Your task to perform on an android device: turn pop-ups off in chrome Image 0: 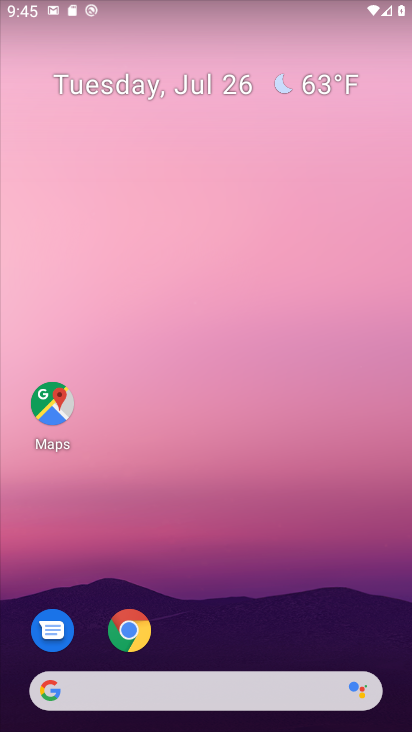
Step 0: press home button
Your task to perform on an android device: turn pop-ups off in chrome Image 1: 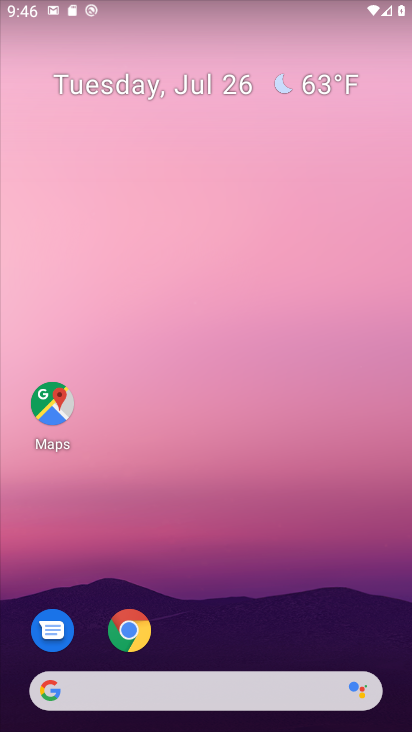
Step 1: click (126, 627)
Your task to perform on an android device: turn pop-ups off in chrome Image 2: 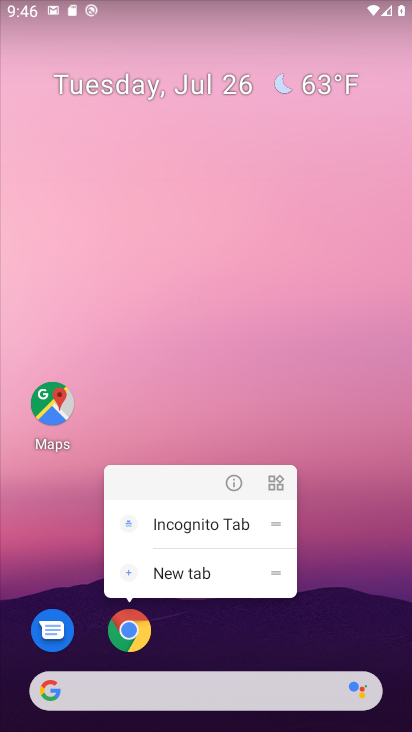
Step 2: click (122, 625)
Your task to perform on an android device: turn pop-ups off in chrome Image 3: 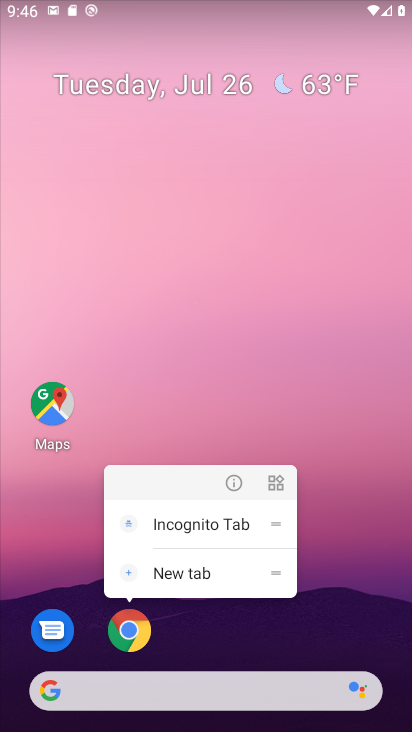
Step 3: click (328, 583)
Your task to perform on an android device: turn pop-ups off in chrome Image 4: 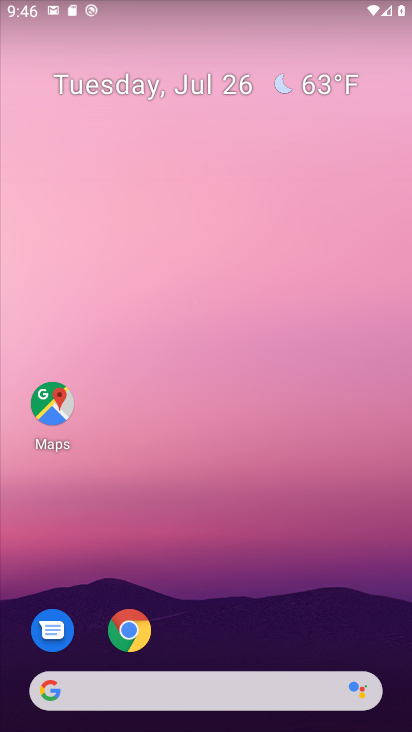
Step 4: click (125, 626)
Your task to perform on an android device: turn pop-ups off in chrome Image 5: 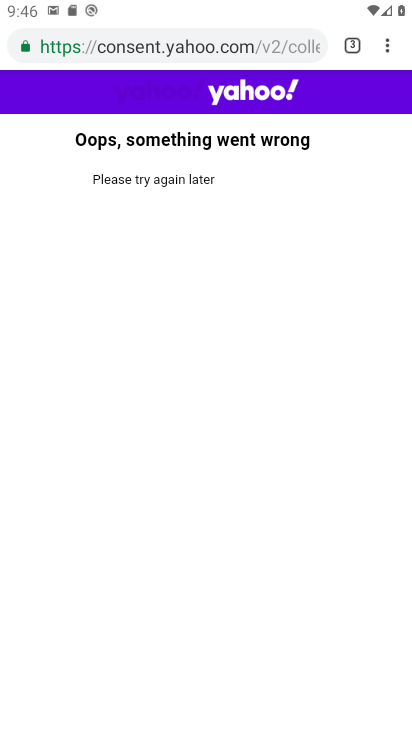
Step 5: click (387, 42)
Your task to perform on an android device: turn pop-ups off in chrome Image 6: 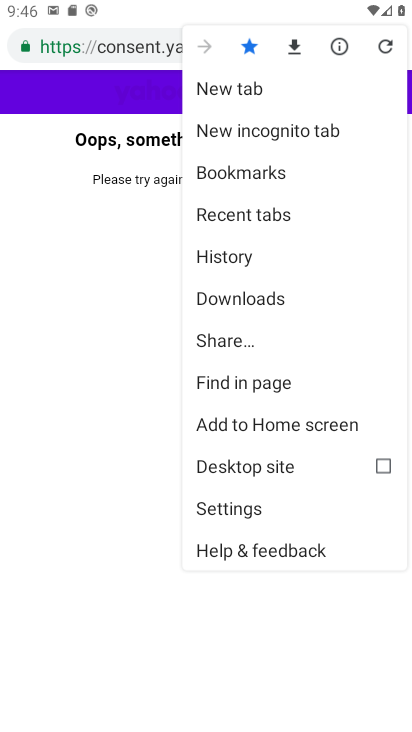
Step 6: click (271, 511)
Your task to perform on an android device: turn pop-ups off in chrome Image 7: 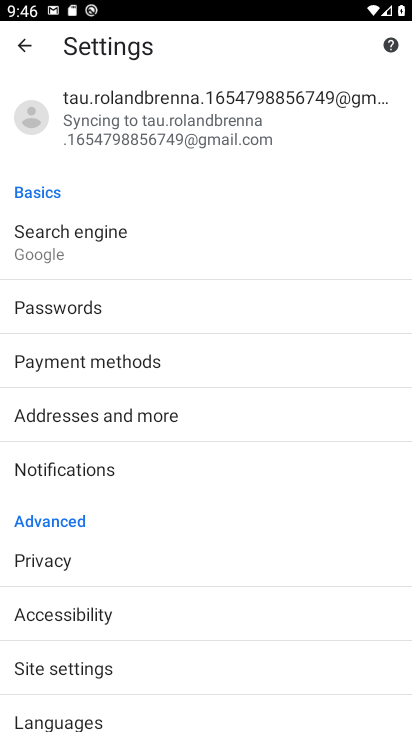
Step 7: click (122, 666)
Your task to perform on an android device: turn pop-ups off in chrome Image 8: 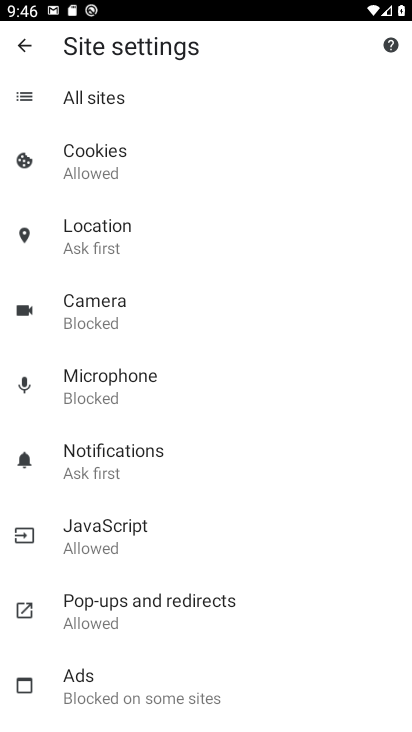
Step 8: click (133, 613)
Your task to perform on an android device: turn pop-ups off in chrome Image 9: 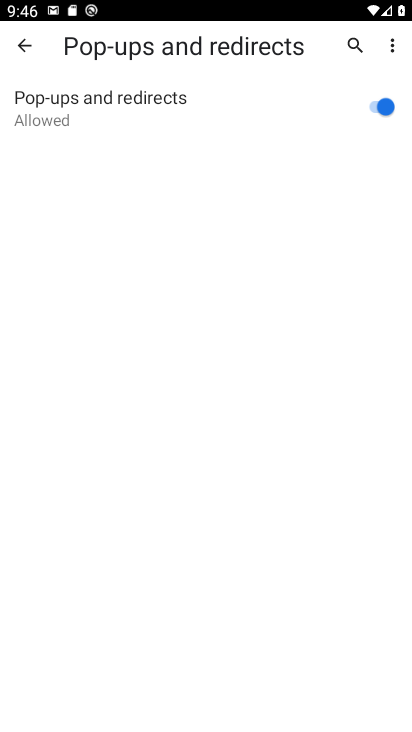
Step 9: click (372, 111)
Your task to perform on an android device: turn pop-ups off in chrome Image 10: 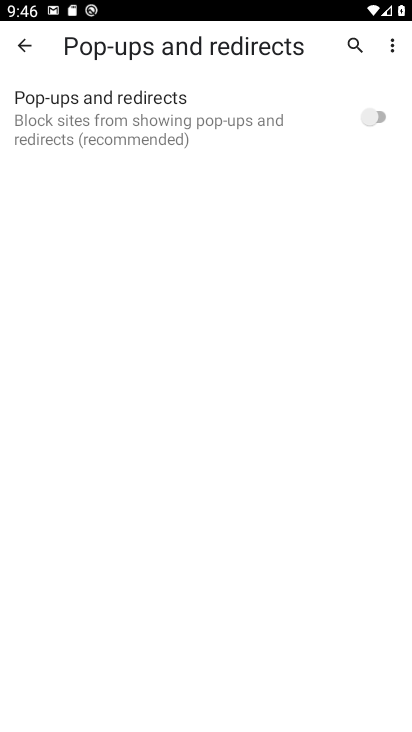
Step 10: task complete